Your task to perform on an android device: turn on sleep mode Image 0: 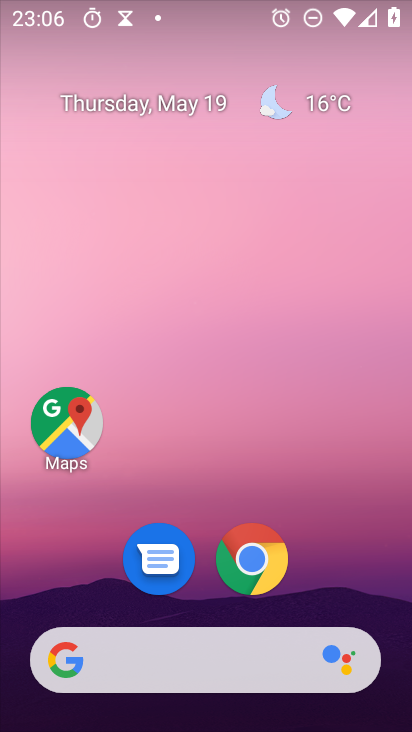
Step 0: drag from (194, 720) to (173, 7)
Your task to perform on an android device: turn on sleep mode Image 1: 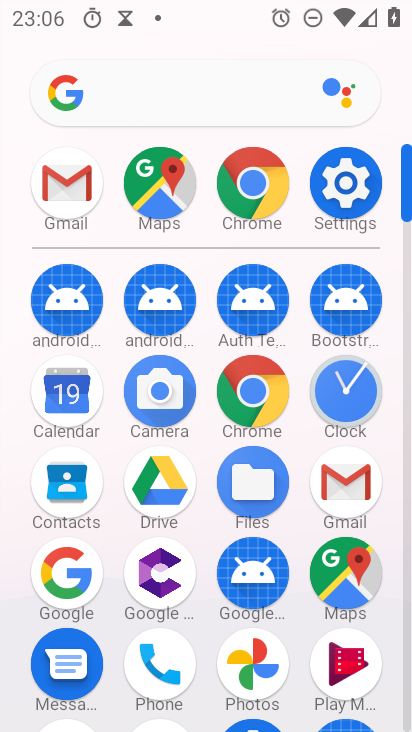
Step 1: click (347, 182)
Your task to perform on an android device: turn on sleep mode Image 2: 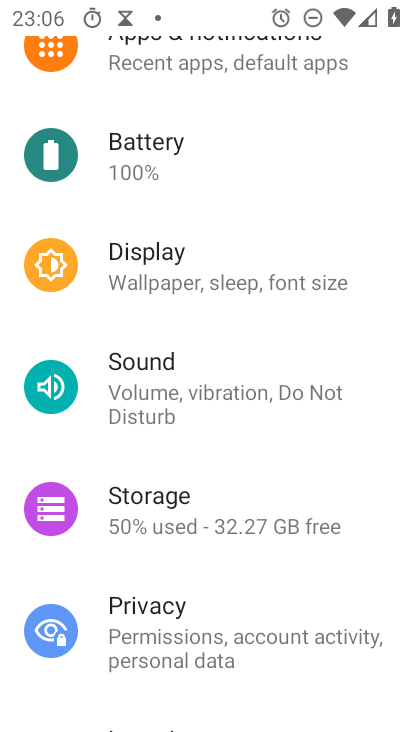
Step 2: task complete